Your task to perform on an android device: Open Youtube and go to the subscriptions tab Image 0: 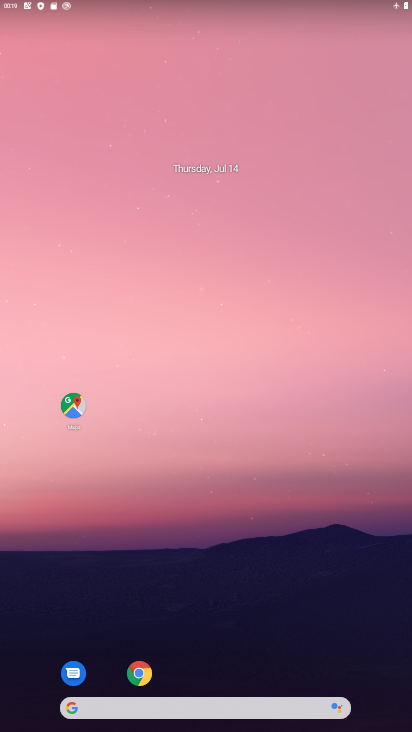
Step 0: drag from (193, 654) to (198, 158)
Your task to perform on an android device: Open Youtube and go to the subscriptions tab Image 1: 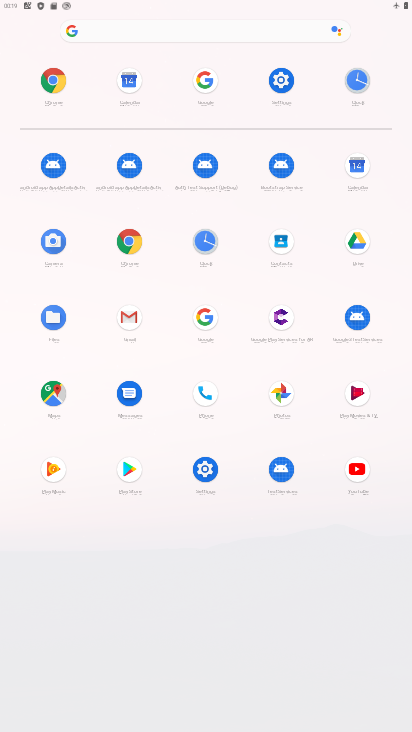
Step 1: click (345, 466)
Your task to perform on an android device: Open Youtube and go to the subscriptions tab Image 2: 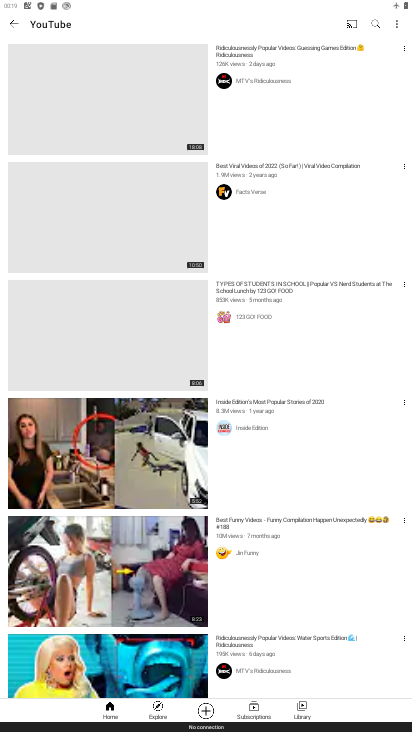
Step 2: click (255, 698)
Your task to perform on an android device: Open Youtube and go to the subscriptions tab Image 3: 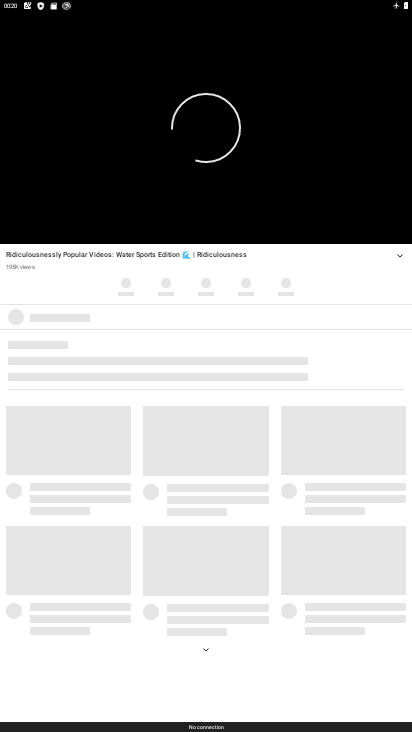
Step 3: task complete